Your task to perform on an android device: Open maps Image 0: 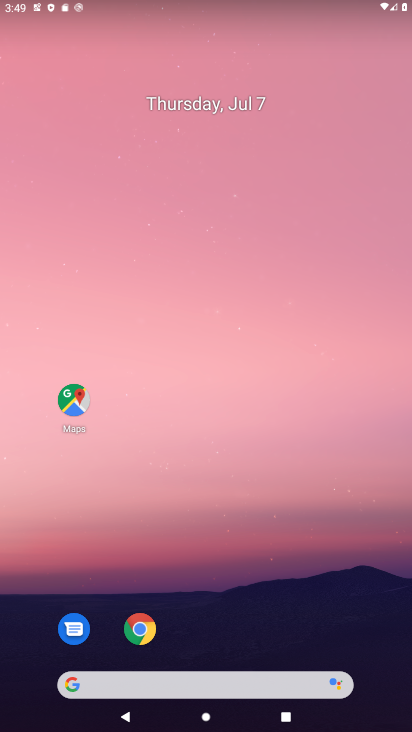
Step 0: click (81, 395)
Your task to perform on an android device: Open maps Image 1: 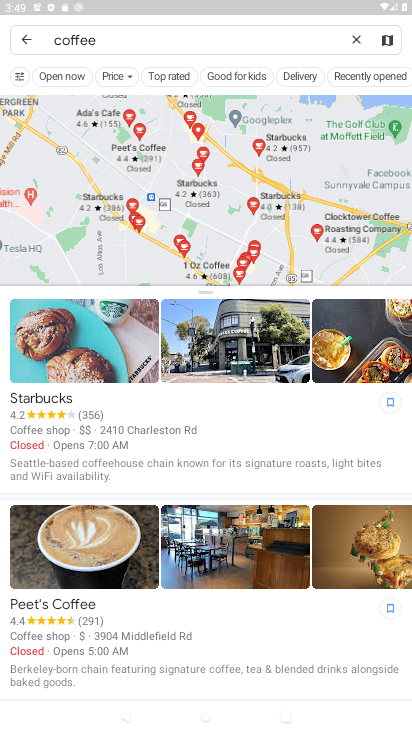
Step 1: click (15, 39)
Your task to perform on an android device: Open maps Image 2: 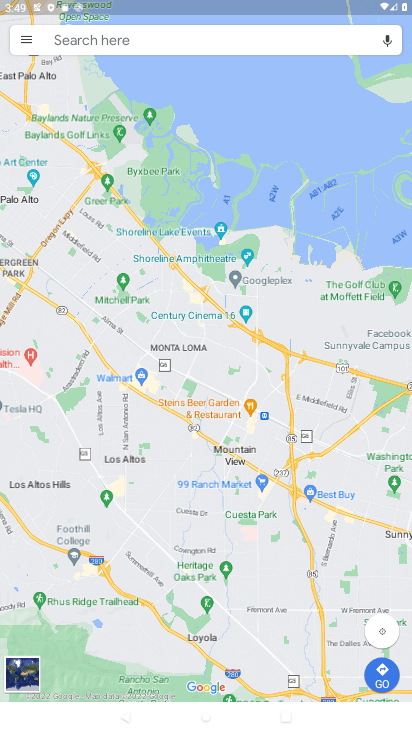
Step 2: task complete